Your task to perform on an android device: Go to Wikipedia Image 0: 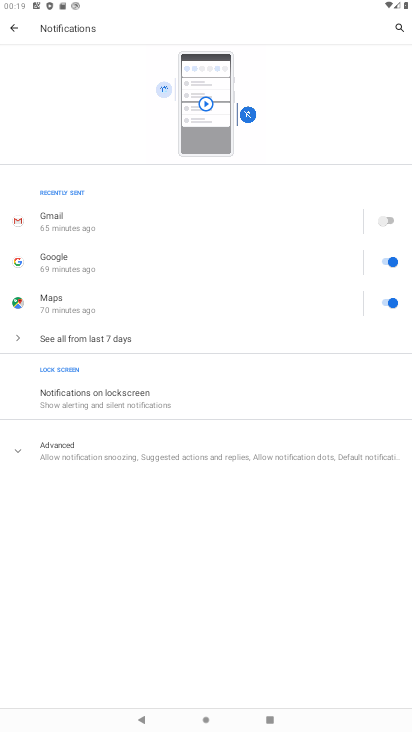
Step 0: press home button
Your task to perform on an android device: Go to Wikipedia Image 1: 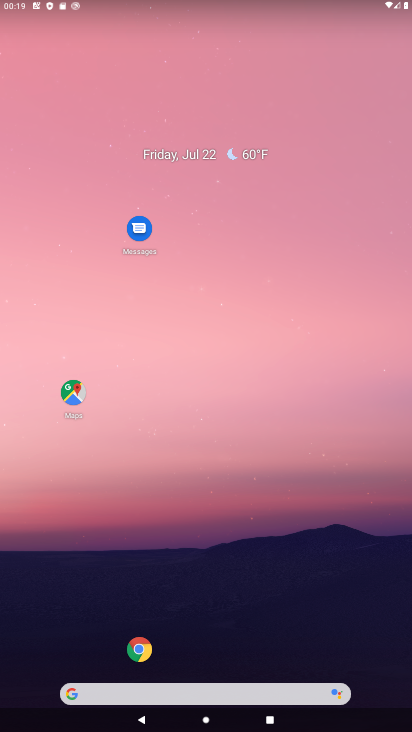
Step 1: click (121, 697)
Your task to perform on an android device: Go to Wikipedia Image 2: 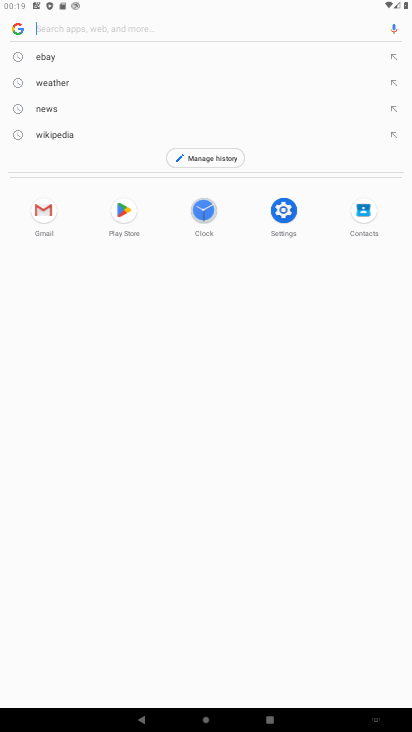
Step 2: click (50, 134)
Your task to perform on an android device: Go to Wikipedia Image 3: 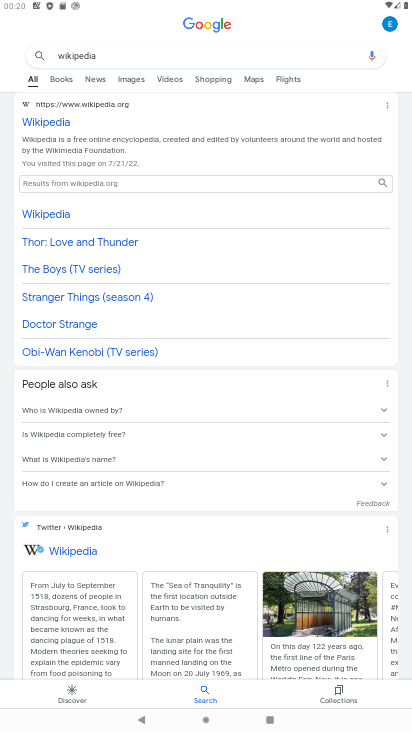
Step 3: task complete